Your task to perform on an android device: Open Google Maps Image 0: 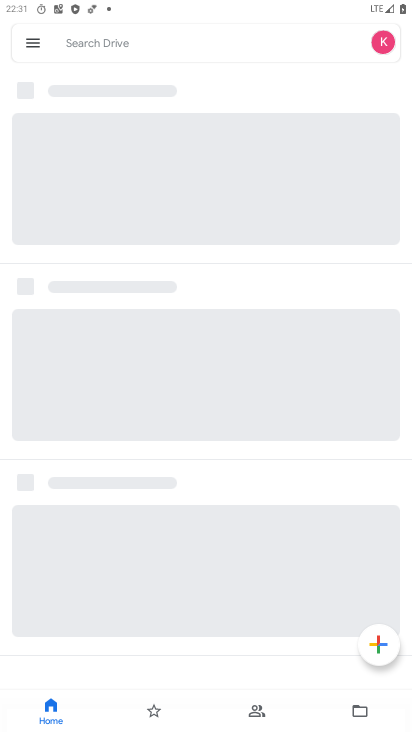
Step 0: press home button
Your task to perform on an android device: Open Google Maps Image 1: 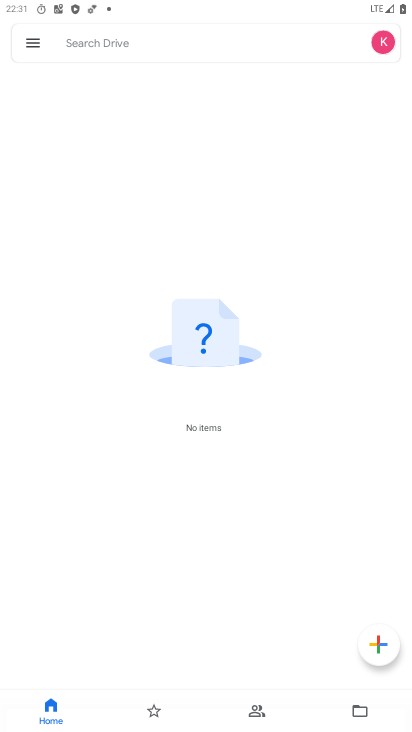
Step 1: press home button
Your task to perform on an android device: Open Google Maps Image 2: 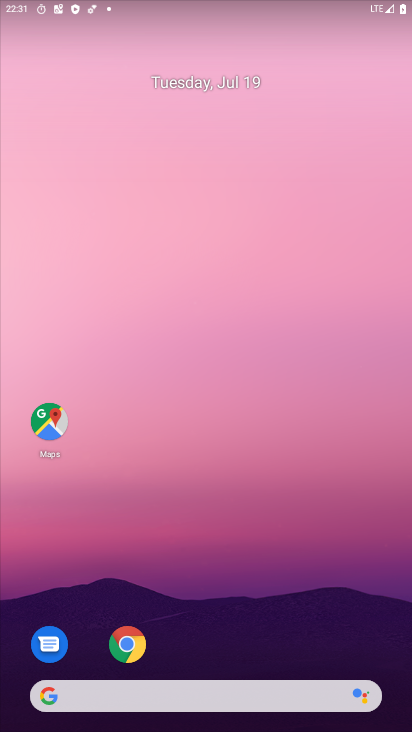
Step 2: drag from (301, 626) to (304, 190)
Your task to perform on an android device: Open Google Maps Image 3: 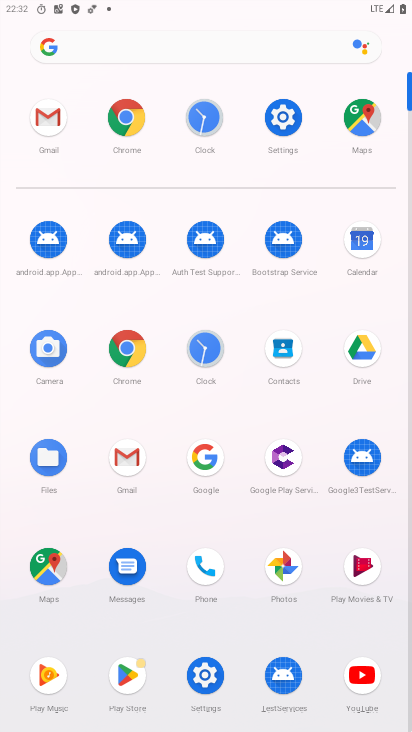
Step 3: click (25, 578)
Your task to perform on an android device: Open Google Maps Image 4: 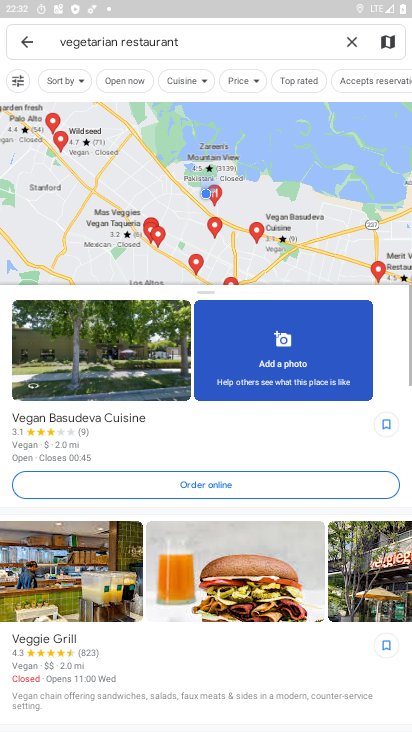
Step 4: task complete